Your task to perform on an android device: Open sound settings Image 0: 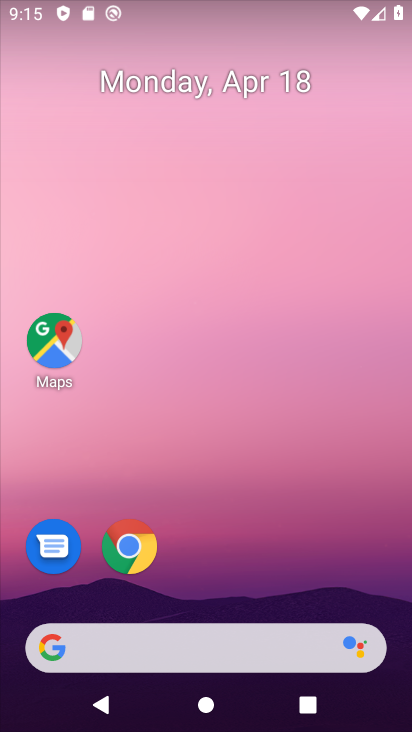
Step 0: drag from (261, 478) to (222, 0)
Your task to perform on an android device: Open sound settings Image 1: 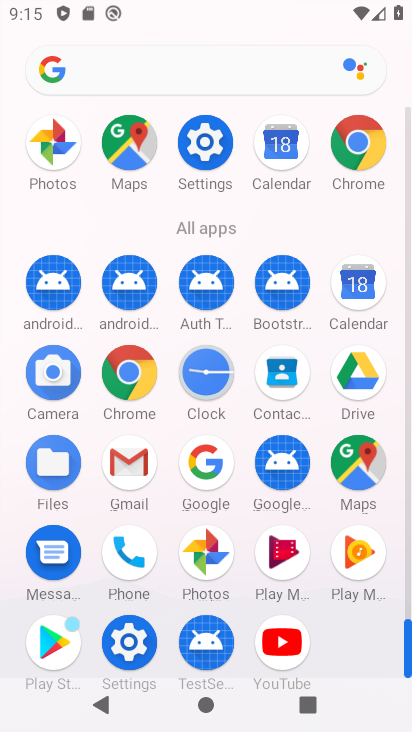
Step 1: click (213, 163)
Your task to perform on an android device: Open sound settings Image 2: 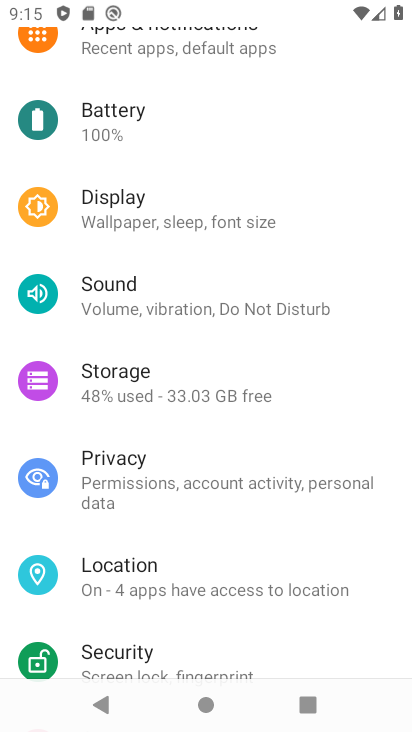
Step 2: click (175, 292)
Your task to perform on an android device: Open sound settings Image 3: 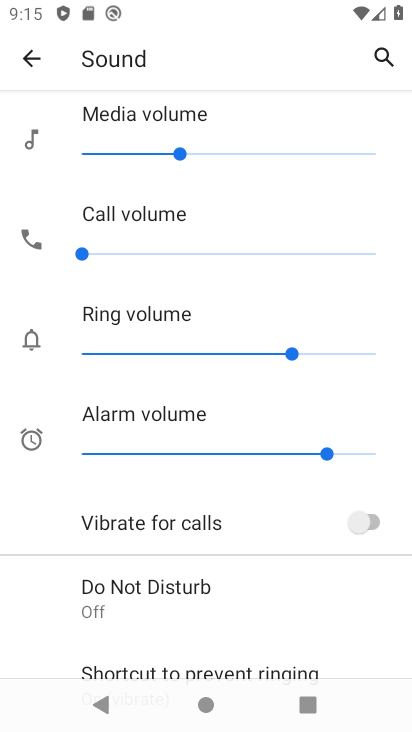
Step 3: task complete